Your task to perform on an android device: Open Amazon Image 0: 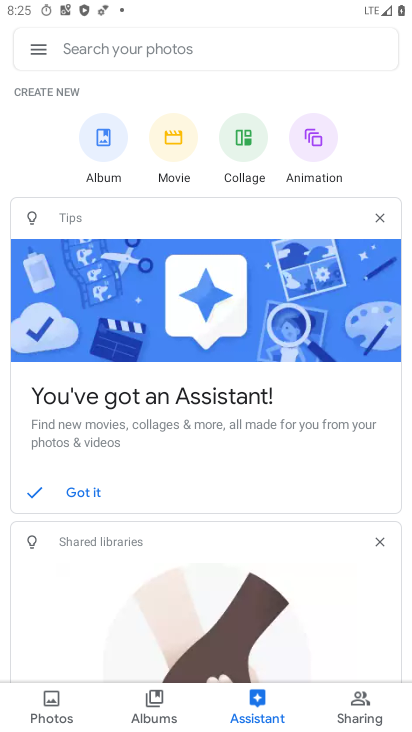
Step 0: press home button
Your task to perform on an android device: Open Amazon Image 1: 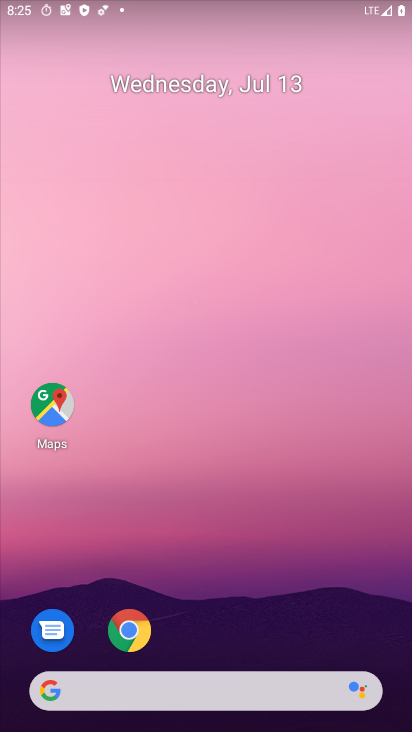
Step 1: drag from (348, 643) to (409, 431)
Your task to perform on an android device: Open Amazon Image 2: 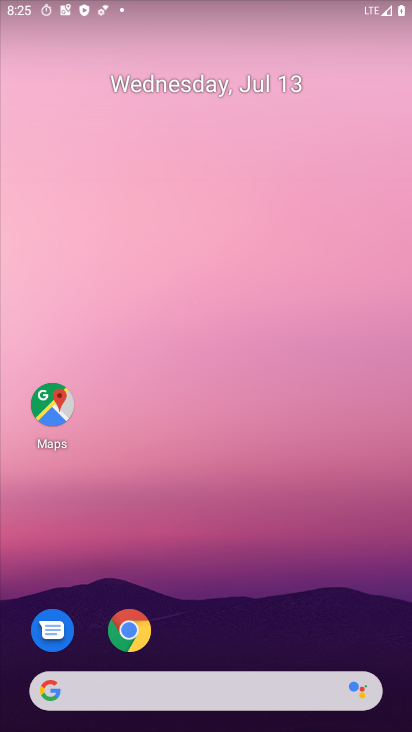
Step 2: drag from (334, 605) to (375, 93)
Your task to perform on an android device: Open Amazon Image 3: 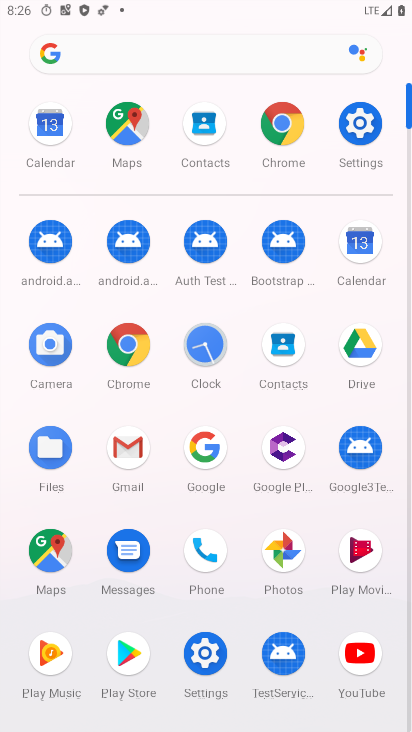
Step 3: click (138, 341)
Your task to perform on an android device: Open Amazon Image 4: 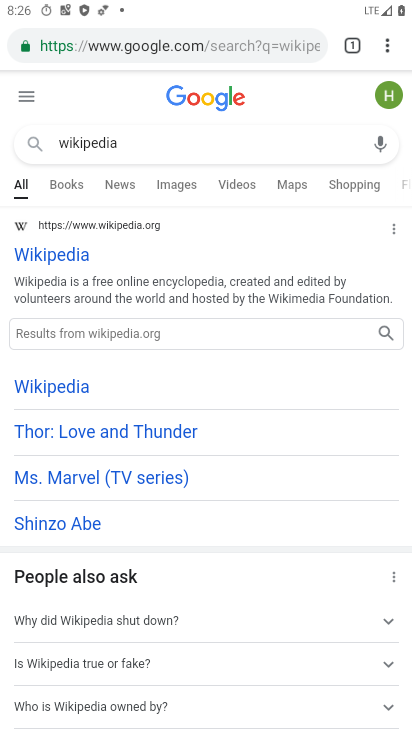
Step 4: click (286, 53)
Your task to perform on an android device: Open Amazon Image 5: 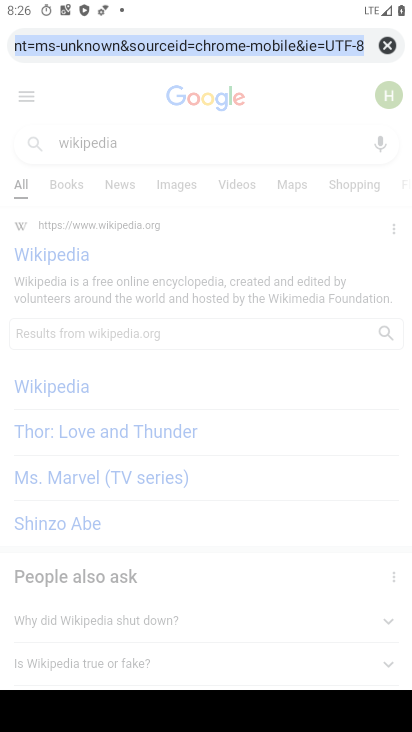
Step 5: type "amazon"
Your task to perform on an android device: Open Amazon Image 6: 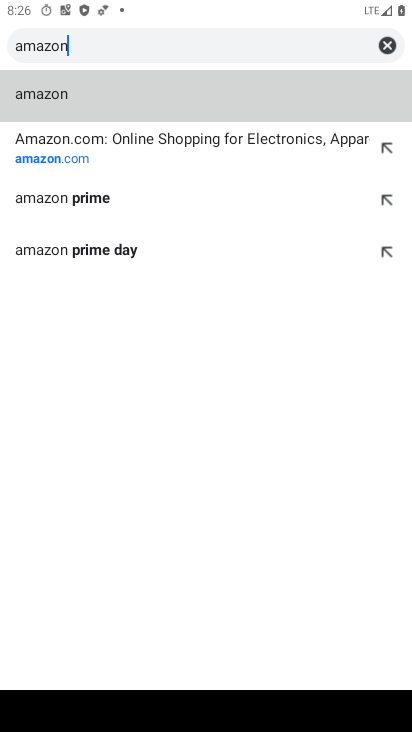
Step 6: click (174, 95)
Your task to perform on an android device: Open Amazon Image 7: 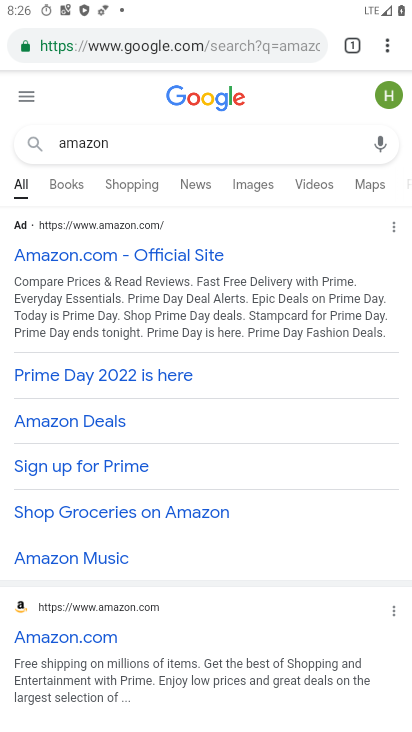
Step 7: task complete